Your task to perform on an android device: empty trash in google photos Image 0: 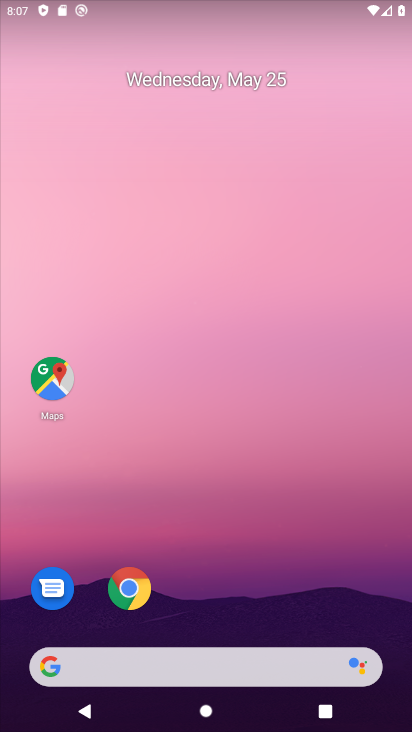
Step 0: drag from (54, 513) to (312, 108)
Your task to perform on an android device: empty trash in google photos Image 1: 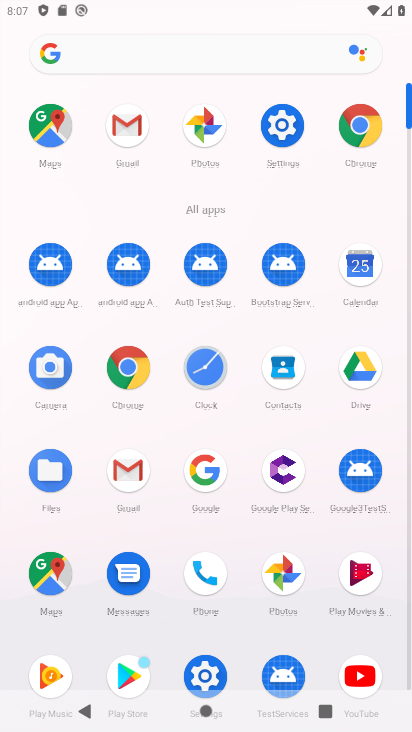
Step 1: click (275, 575)
Your task to perform on an android device: empty trash in google photos Image 2: 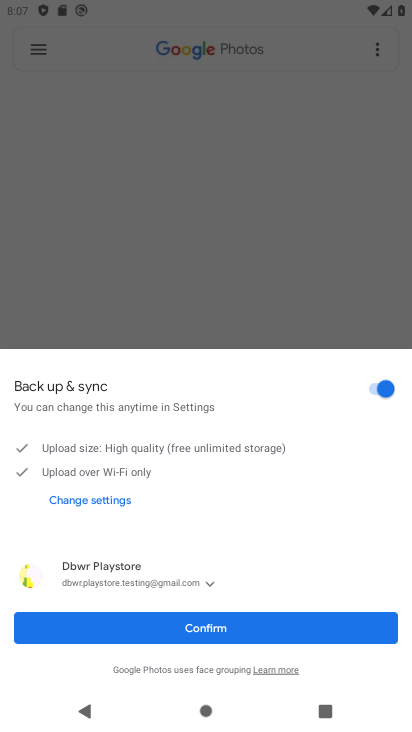
Step 2: click (254, 617)
Your task to perform on an android device: empty trash in google photos Image 3: 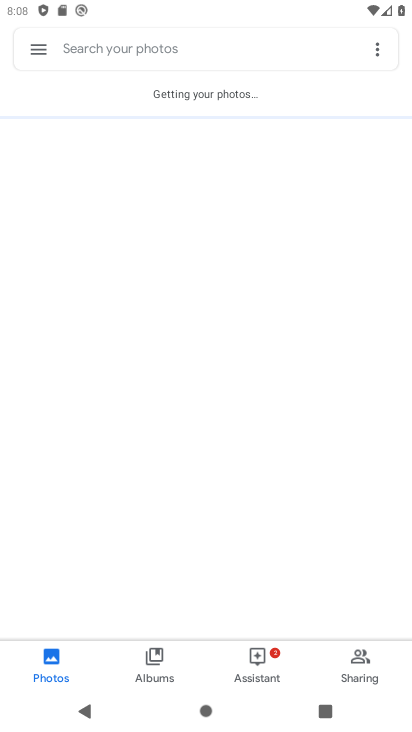
Step 3: click (35, 51)
Your task to perform on an android device: empty trash in google photos Image 4: 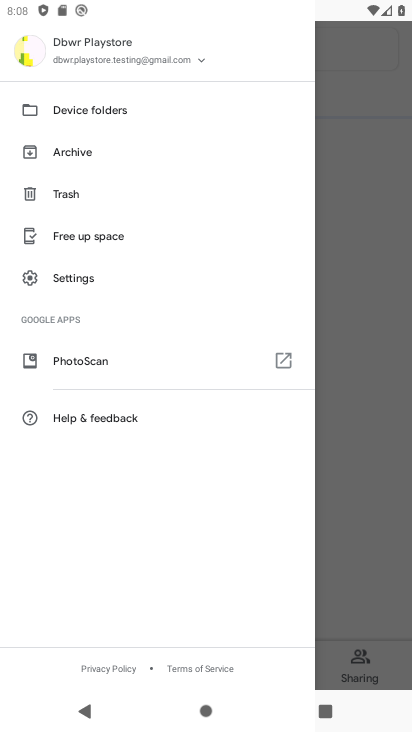
Step 4: click (65, 190)
Your task to perform on an android device: empty trash in google photos Image 5: 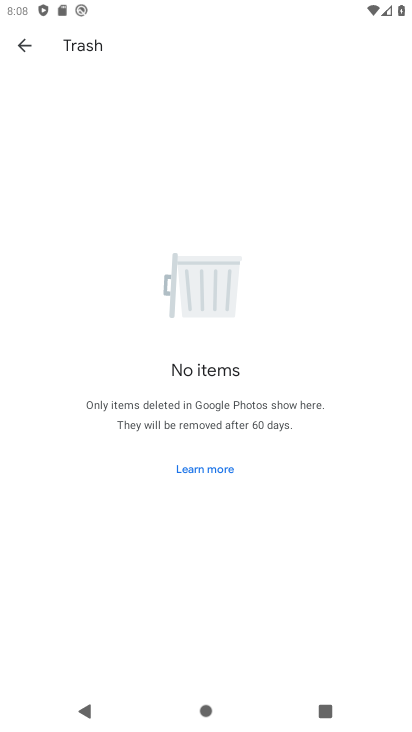
Step 5: task complete